Your task to perform on an android device: open the mobile data screen to see how much data has been used Image 0: 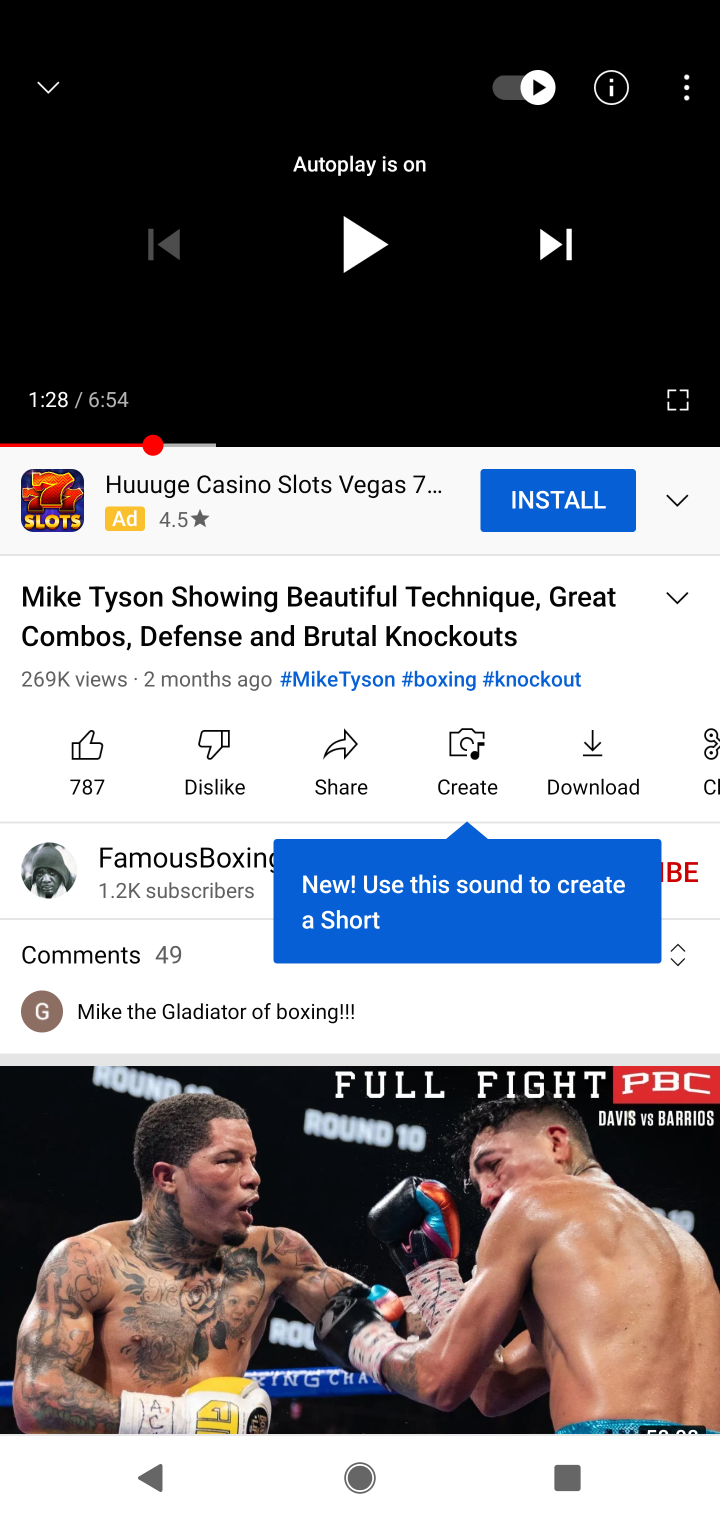
Step 0: press home button
Your task to perform on an android device: open the mobile data screen to see how much data has been used Image 1: 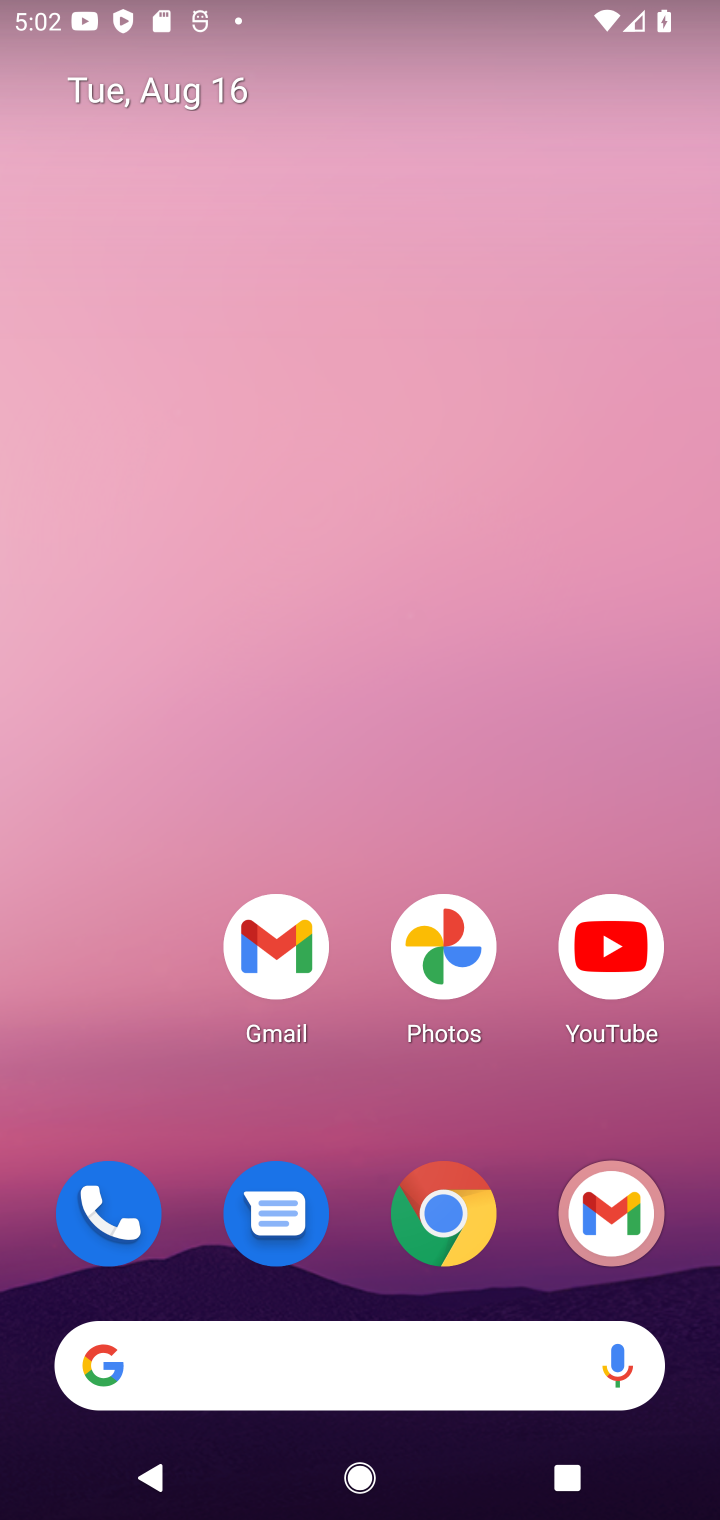
Step 1: drag from (531, 1079) to (631, 24)
Your task to perform on an android device: open the mobile data screen to see how much data has been used Image 2: 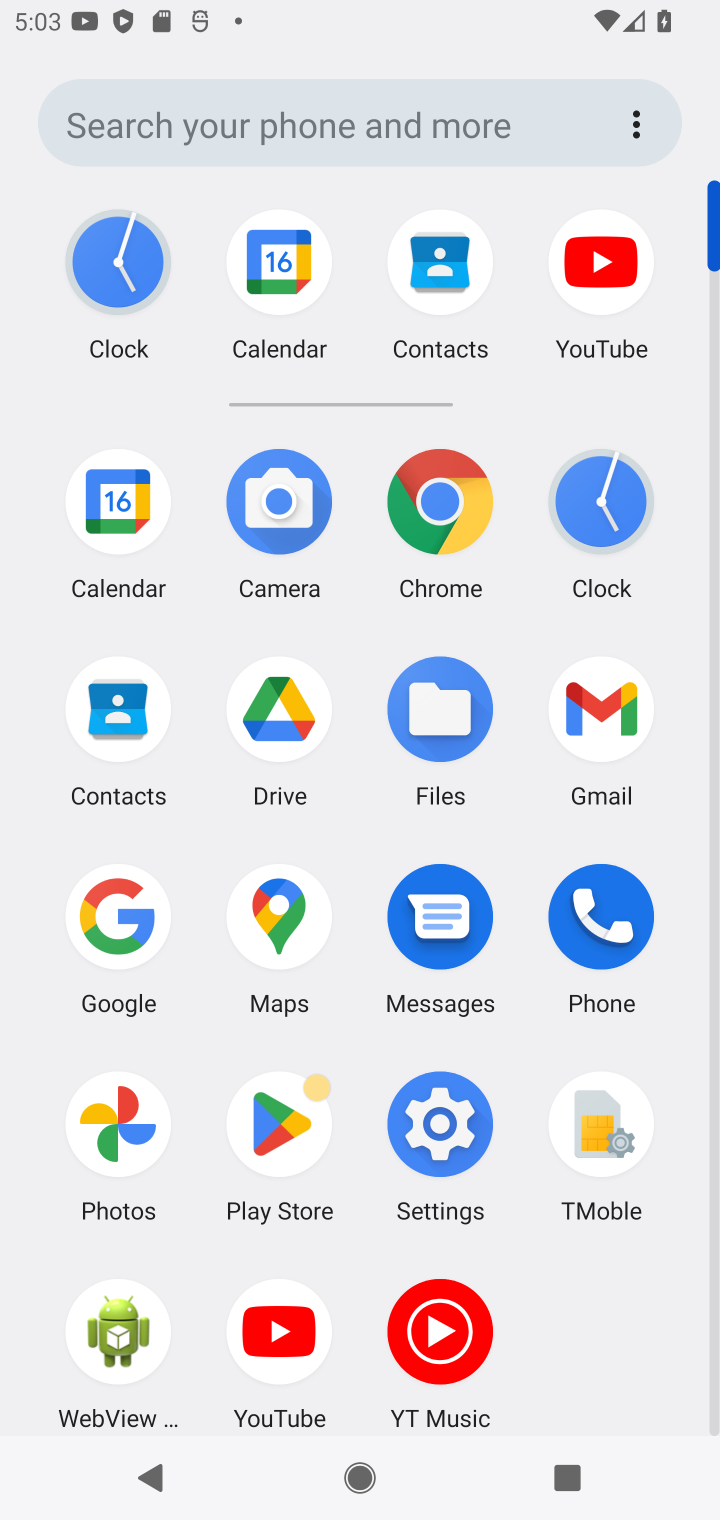
Step 2: click (432, 1122)
Your task to perform on an android device: open the mobile data screen to see how much data has been used Image 3: 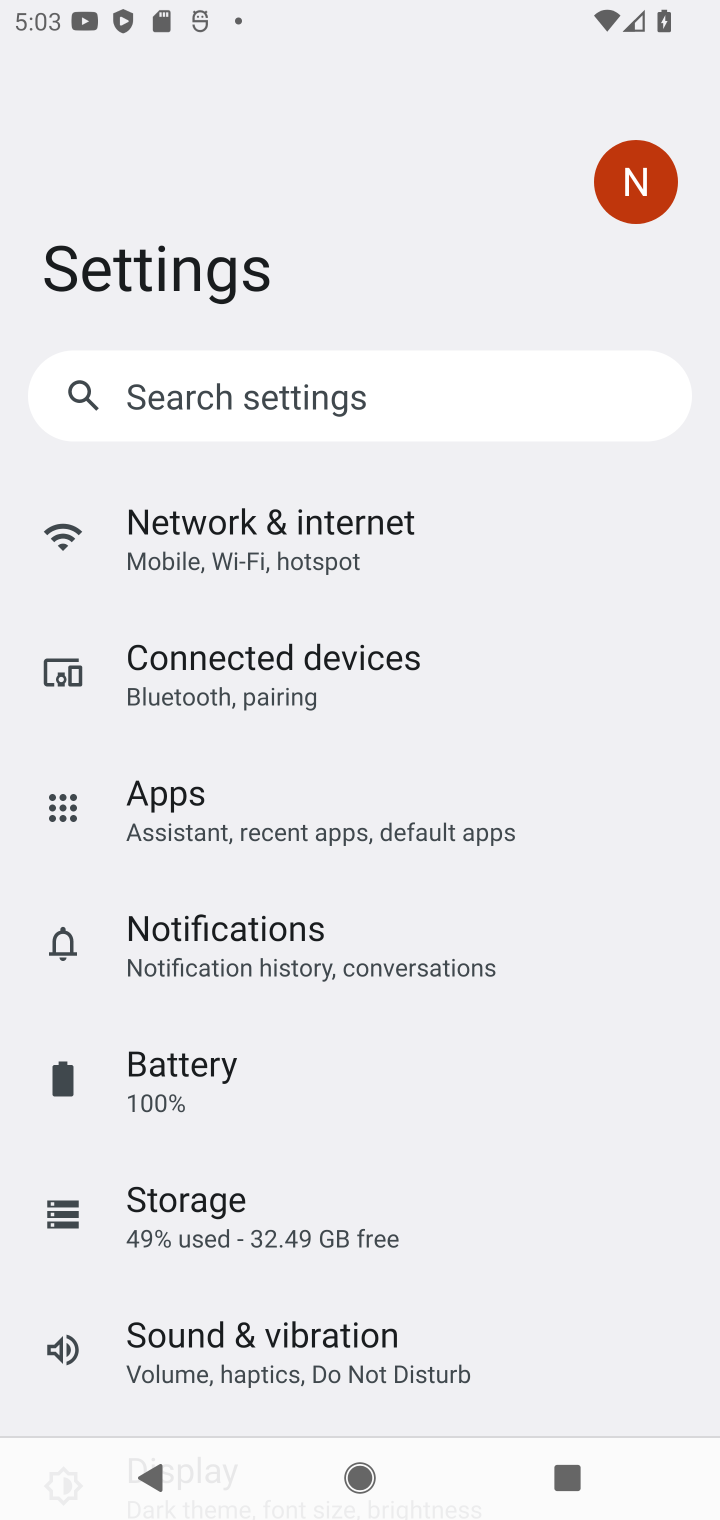
Step 3: click (282, 550)
Your task to perform on an android device: open the mobile data screen to see how much data has been used Image 4: 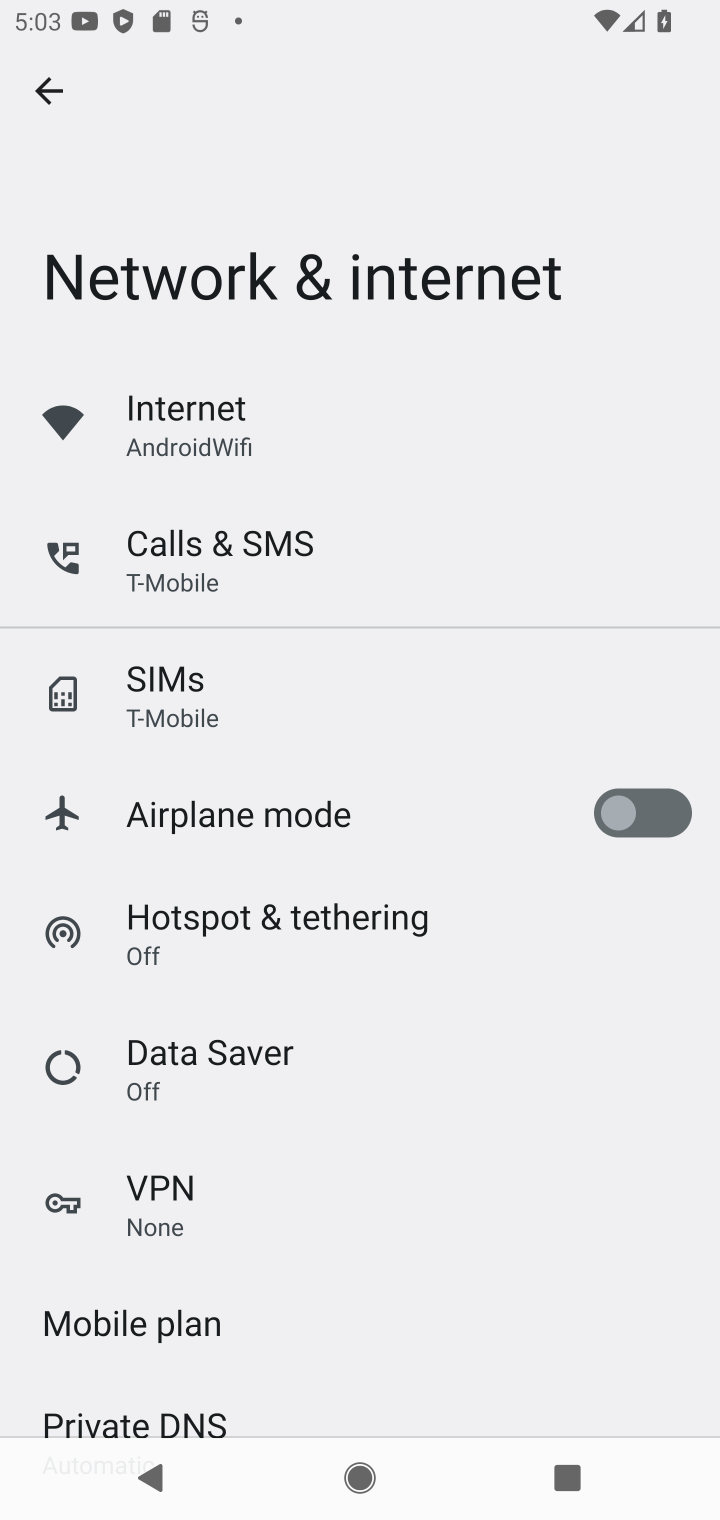
Step 4: click (193, 412)
Your task to perform on an android device: open the mobile data screen to see how much data has been used Image 5: 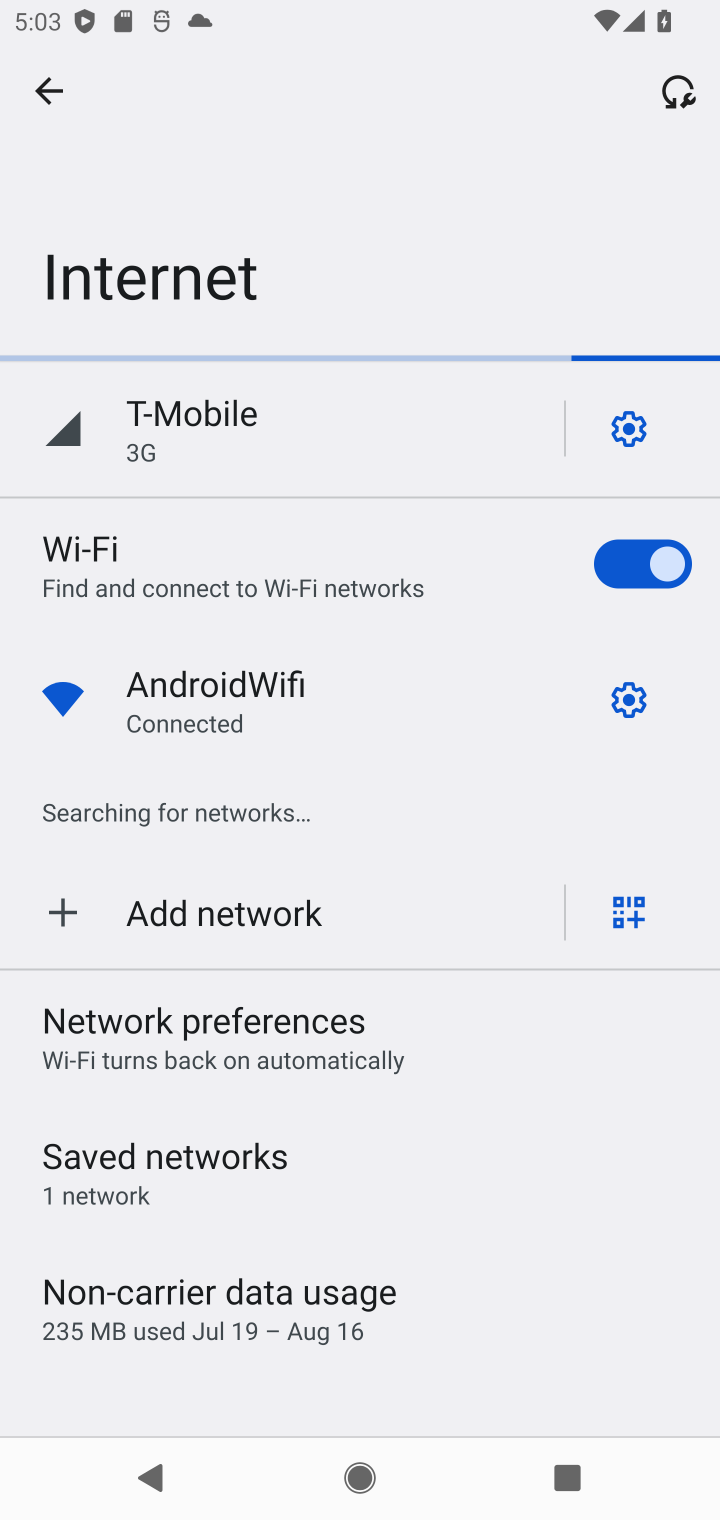
Step 5: click (317, 421)
Your task to perform on an android device: open the mobile data screen to see how much data has been used Image 6: 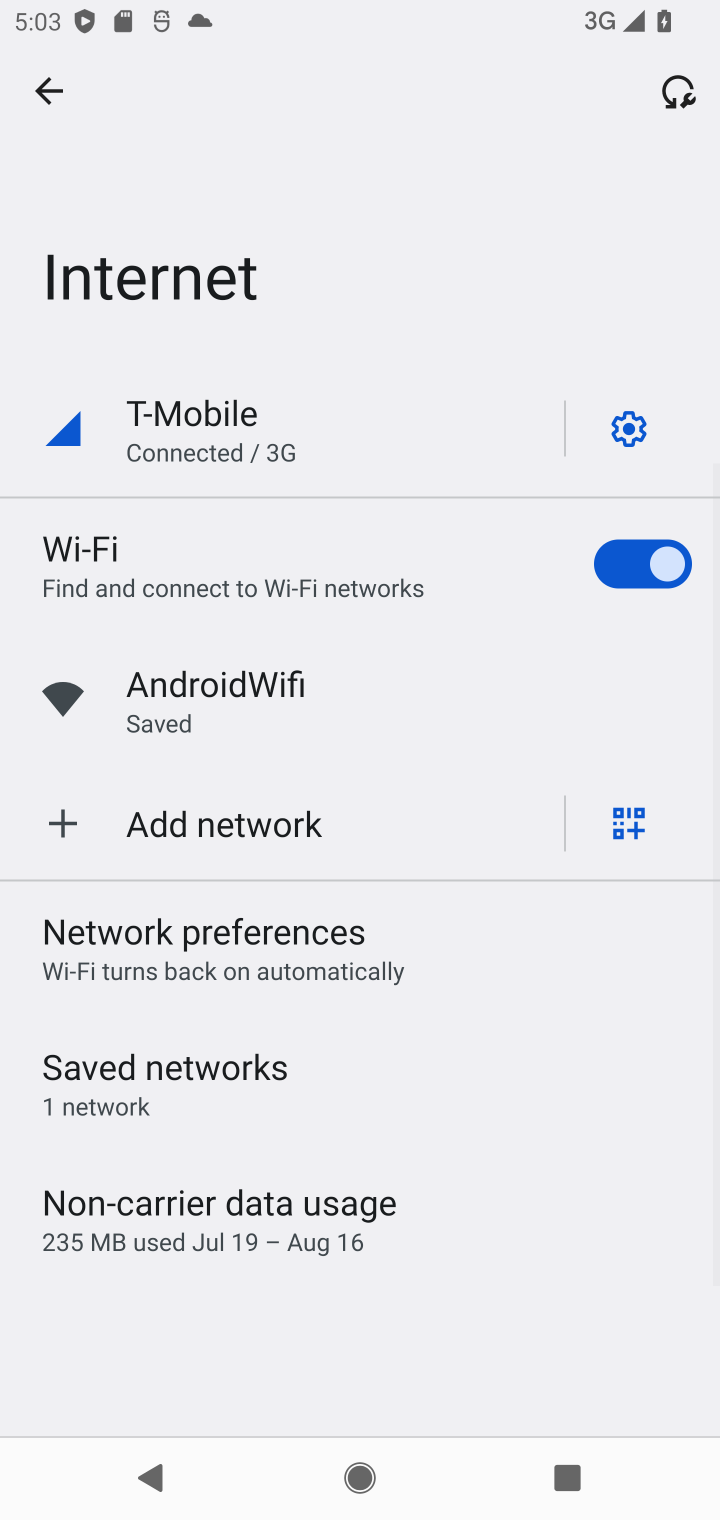
Step 6: click (423, 453)
Your task to perform on an android device: open the mobile data screen to see how much data has been used Image 7: 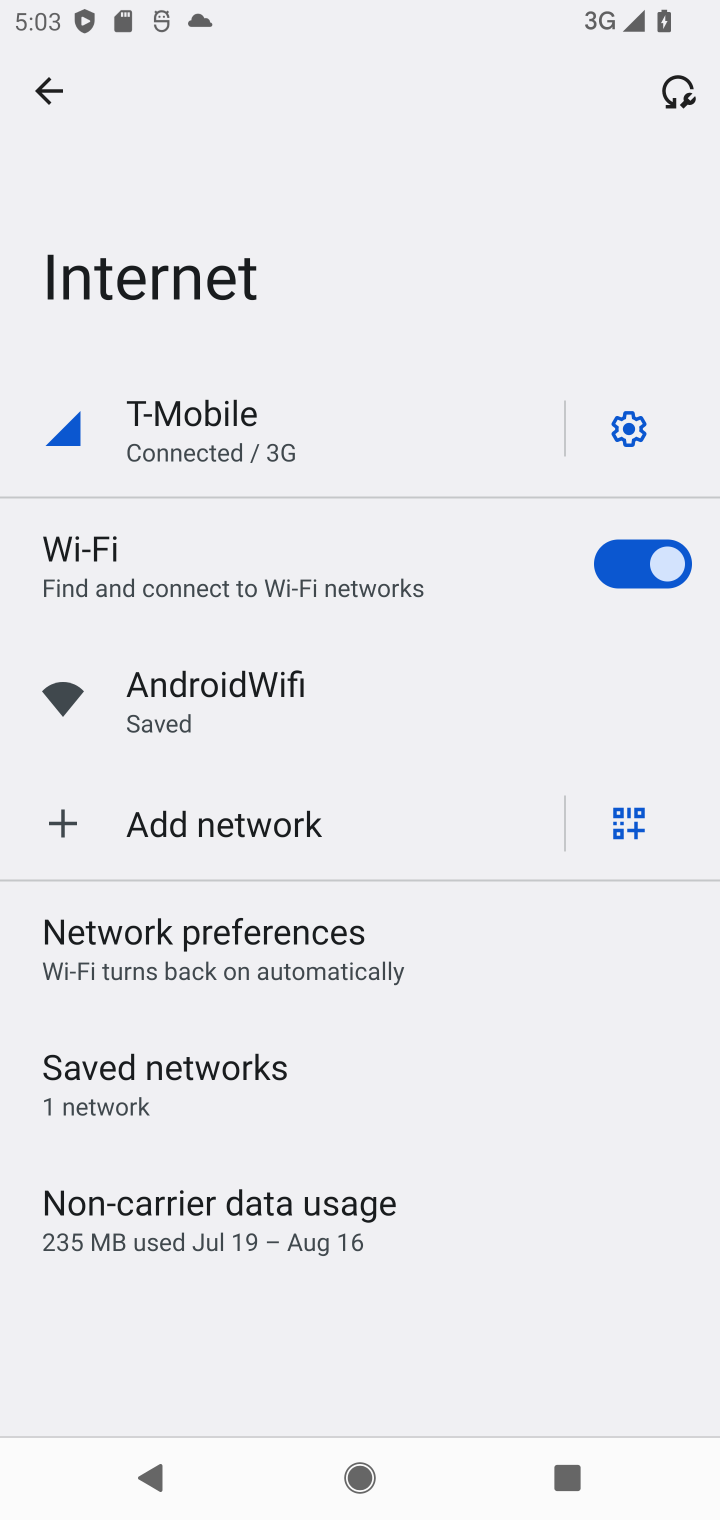
Step 7: click (625, 417)
Your task to perform on an android device: open the mobile data screen to see how much data has been used Image 8: 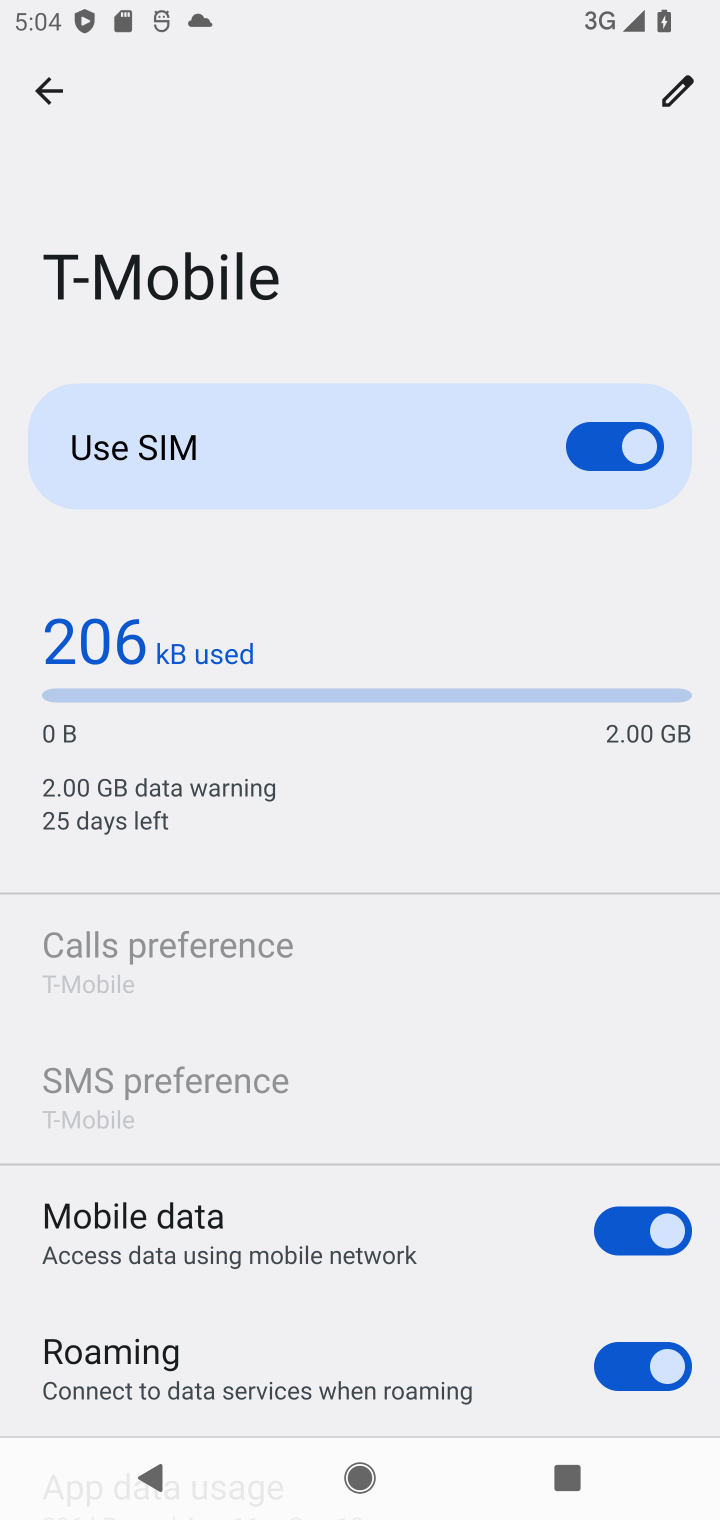
Step 8: task complete